Your task to perform on an android device: delete the emails in spam in the gmail app Image 0: 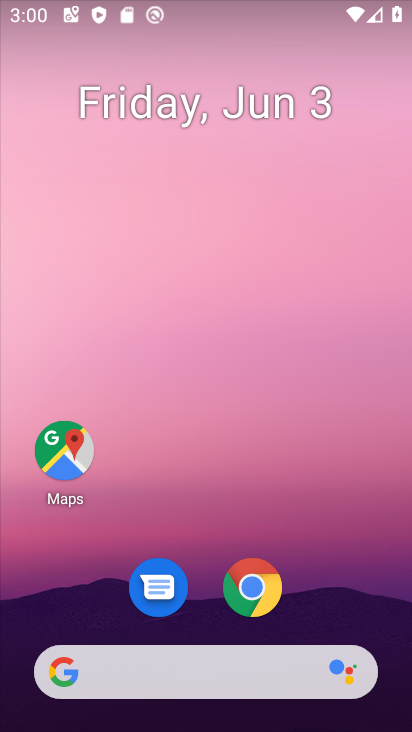
Step 0: drag from (242, 724) to (263, 61)
Your task to perform on an android device: delete the emails in spam in the gmail app Image 1: 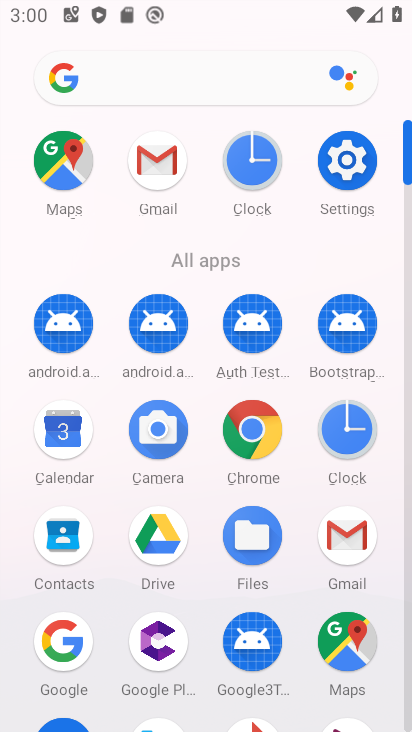
Step 1: click (345, 527)
Your task to perform on an android device: delete the emails in spam in the gmail app Image 2: 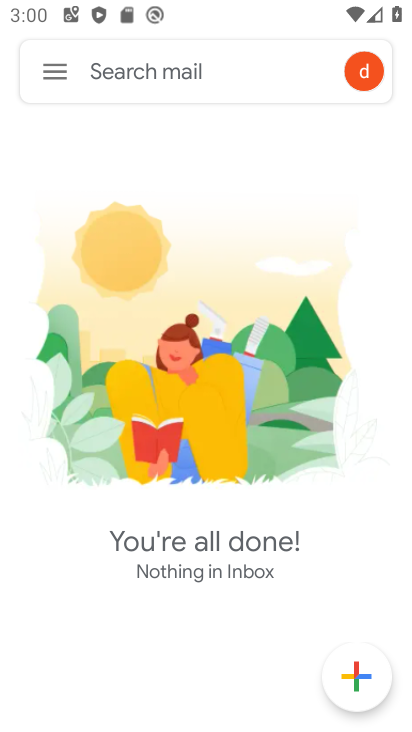
Step 2: click (53, 62)
Your task to perform on an android device: delete the emails in spam in the gmail app Image 3: 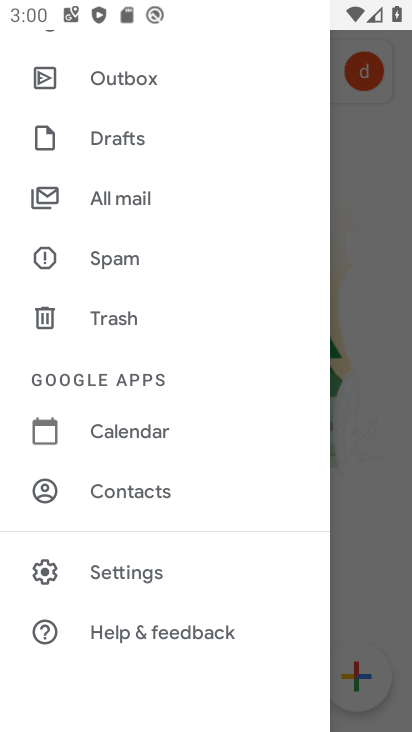
Step 3: click (106, 262)
Your task to perform on an android device: delete the emails in spam in the gmail app Image 4: 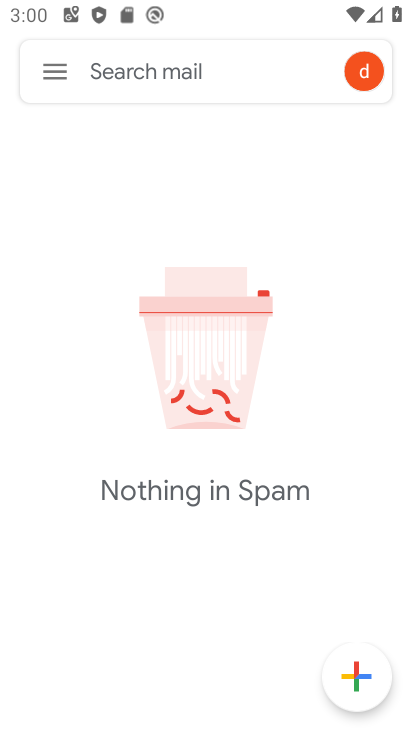
Step 4: task complete